Your task to perform on an android device: find photos in the google photos app Image 0: 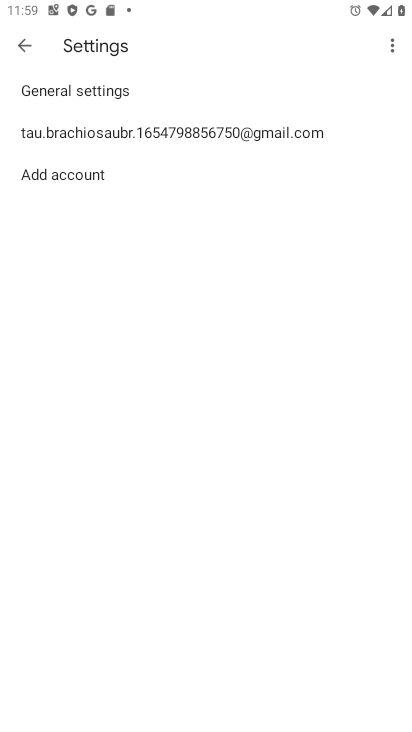
Step 0: press home button
Your task to perform on an android device: find photos in the google photos app Image 1: 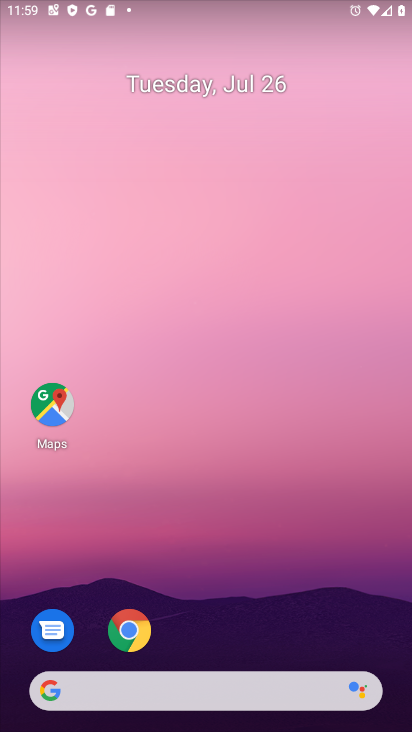
Step 1: drag from (259, 720) to (256, 249)
Your task to perform on an android device: find photos in the google photos app Image 2: 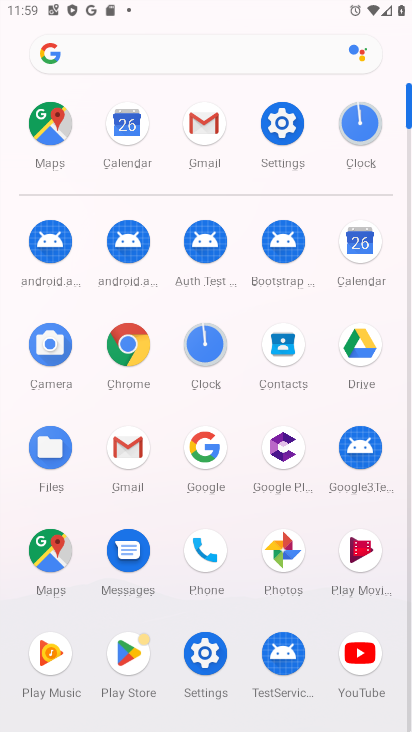
Step 2: click (277, 546)
Your task to perform on an android device: find photos in the google photos app Image 3: 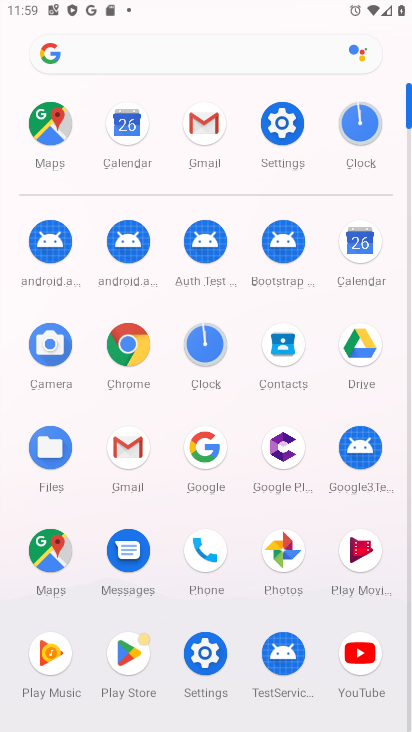
Step 3: click (277, 546)
Your task to perform on an android device: find photos in the google photos app Image 4: 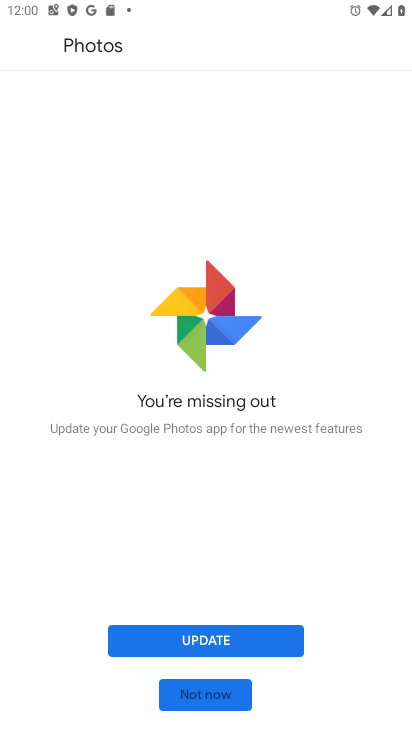
Step 4: click (214, 647)
Your task to perform on an android device: find photos in the google photos app Image 5: 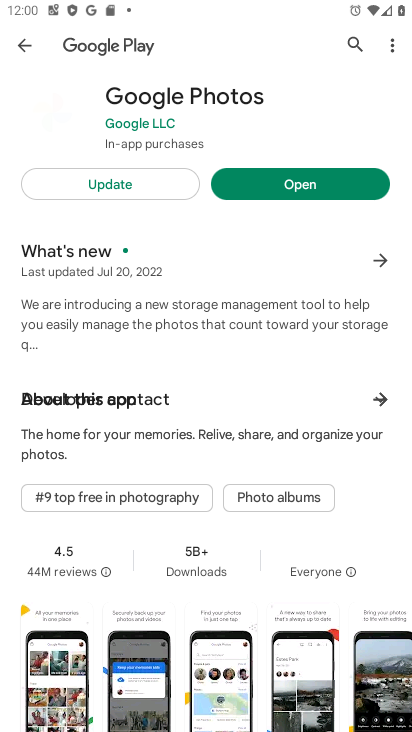
Step 5: task complete